Your task to perform on an android device: turn off sleep mode Image 0: 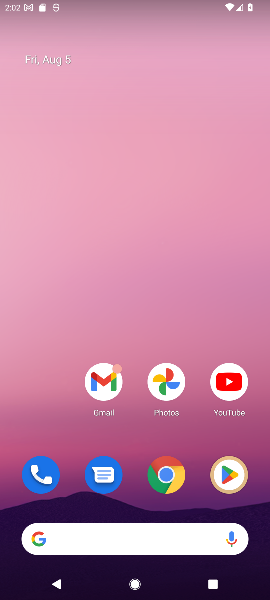
Step 0: drag from (253, 566) to (188, 55)
Your task to perform on an android device: turn off sleep mode Image 1: 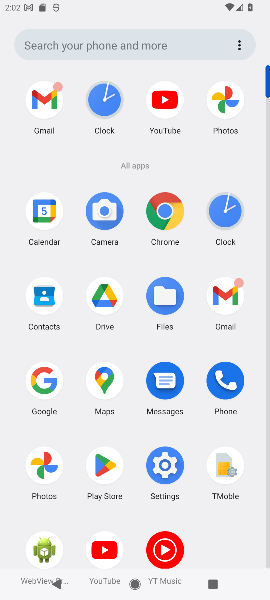
Step 1: click (168, 465)
Your task to perform on an android device: turn off sleep mode Image 2: 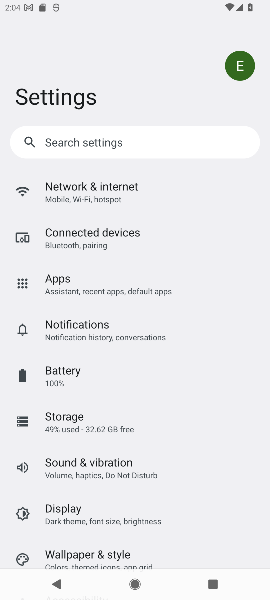
Step 2: click (71, 512)
Your task to perform on an android device: turn off sleep mode Image 3: 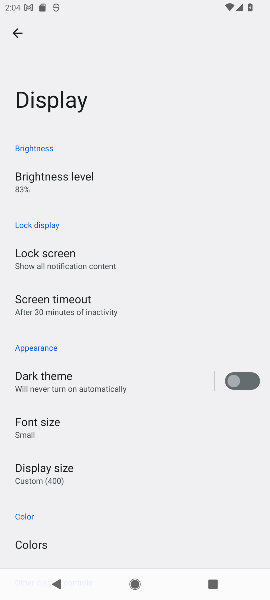
Step 3: task complete